Your task to perform on an android device: Search for Mexican restaurants on Maps Image 0: 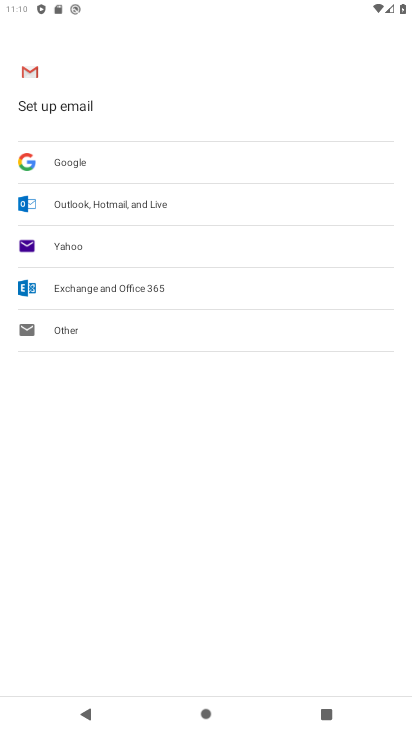
Step 0: click (160, 458)
Your task to perform on an android device: Search for Mexican restaurants on Maps Image 1: 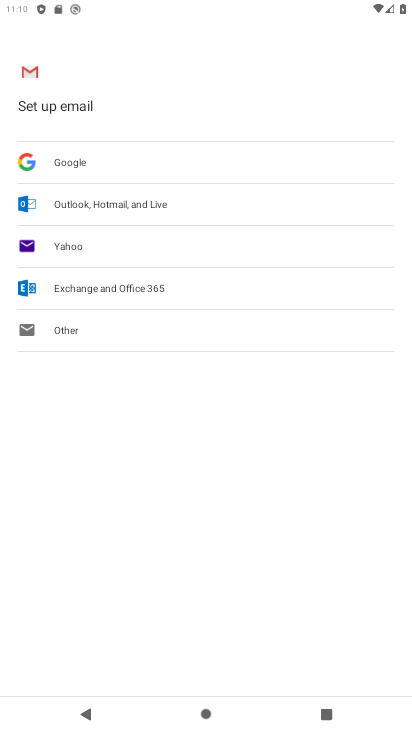
Step 1: press home button
Your task to perform on an android device: Search for Mexican restaurants on Maps Image 2: 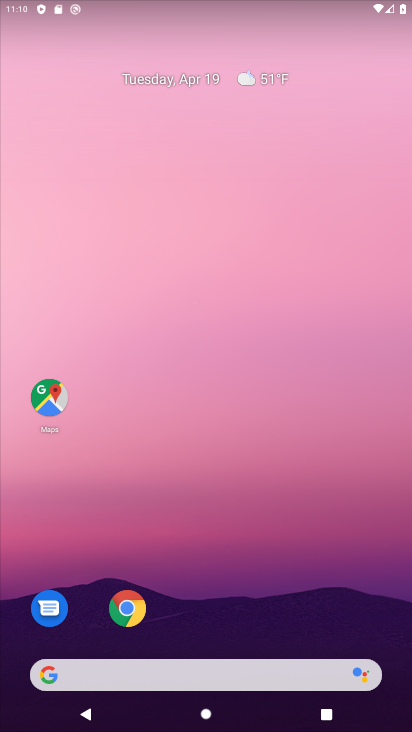
Step 2: click (47, 400)
Your task to perform on an android device: Search for Mexican restaurants on Maps Image 3: 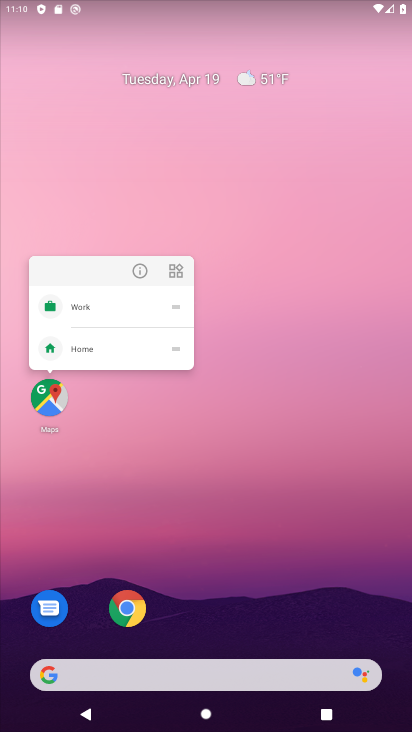
Step 3: click (131, 273)
Your task to perform on an android device: Search for Mexican restaurants on Maps Image 4: 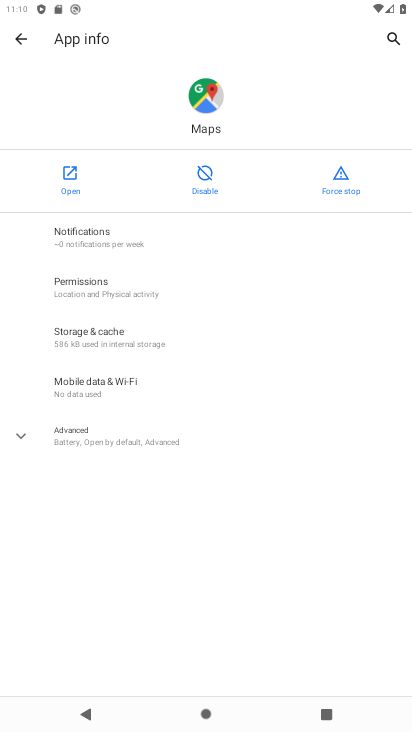
Step 4: click (73, 186)
Your task to perform on an android device: Search for Mexican restaurants on Maps Image 5: 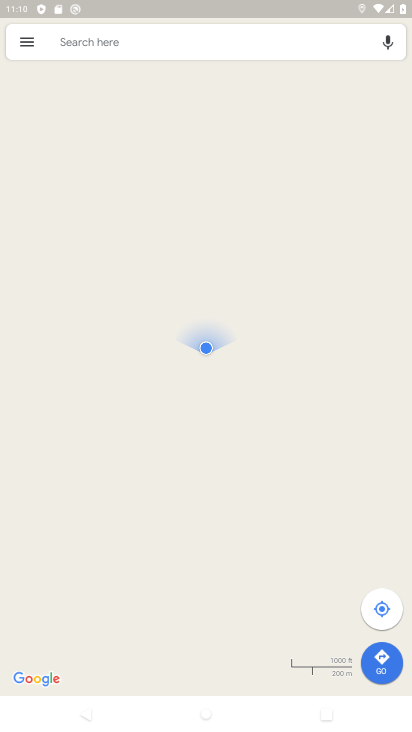
Step 5: click (76, 46)
Your task to perform on an android device: Search for Mexican restaurants on Maps Image 6: 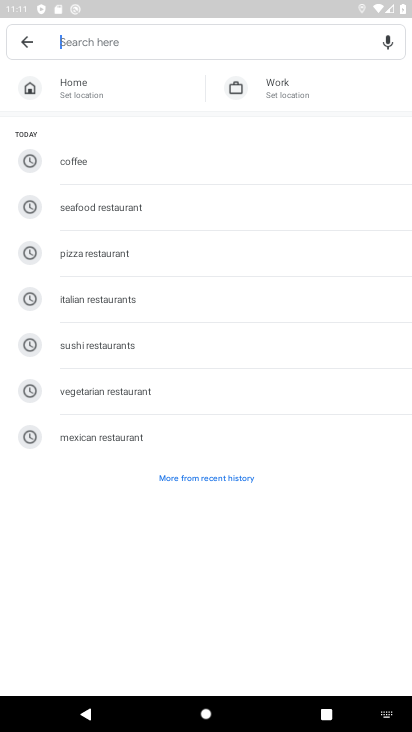
Step 6: type "mexican restaurants"
Your task to perform on an android device: Search for Mexican restaurants on Maps Image 7: 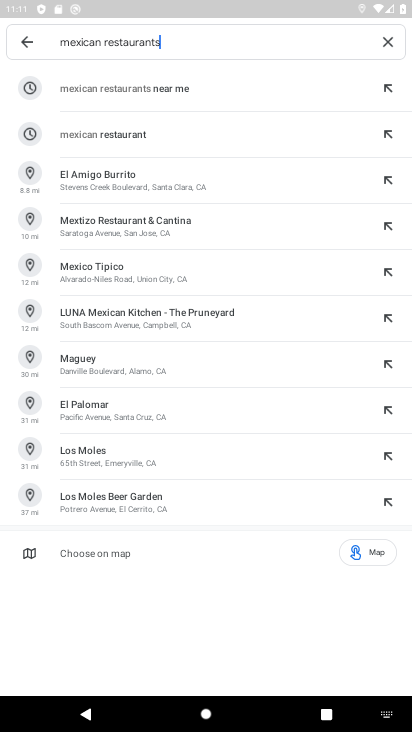
Step 7: click (130, 129)
Your task to perform on an android device: Search for Mexican restaurants on Maps Image 8: 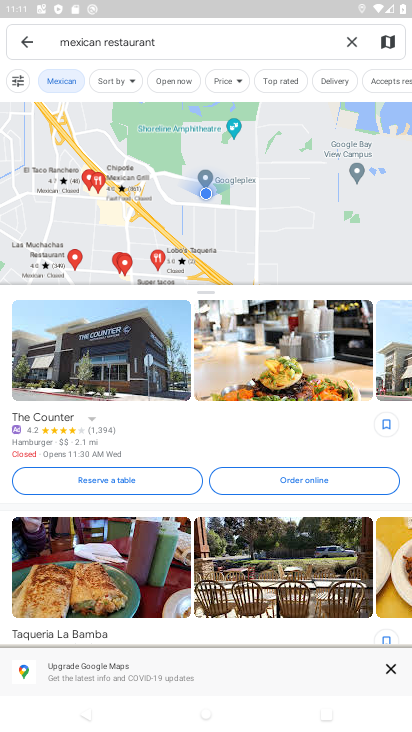
Step 8: task complete